Your task to perform on an android device: make emails show in primary in the gmail app Image 0: 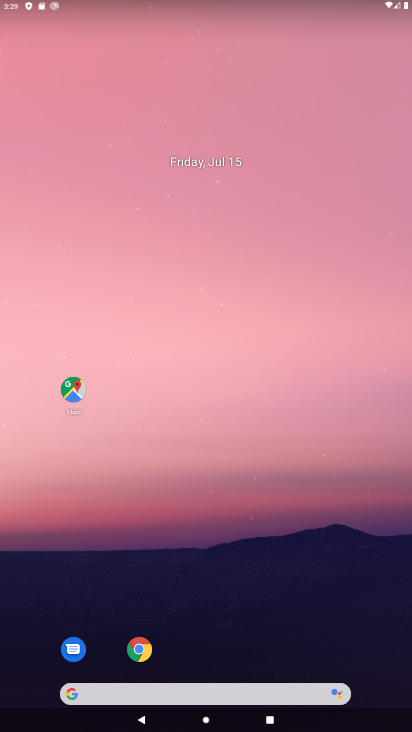
Step 0: drag from (300, 608) to (183, 24)
Your task to perform on an android device: make emails show in primary in the gmail app Image 1: 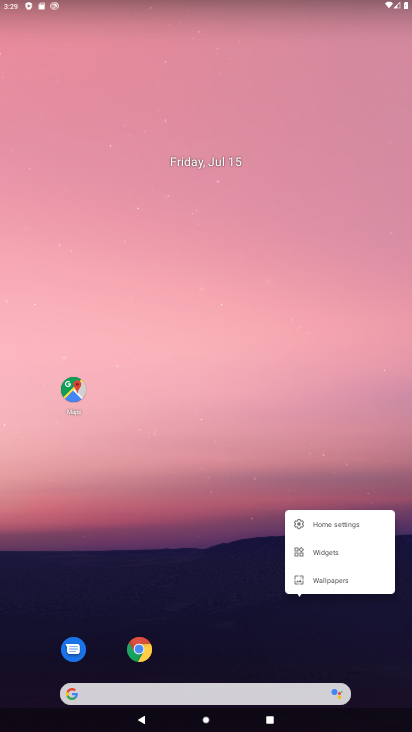
Step 1: click (251, 538)
Your task to perform on an android device: make emails show in primary in the gmail app Image 2: 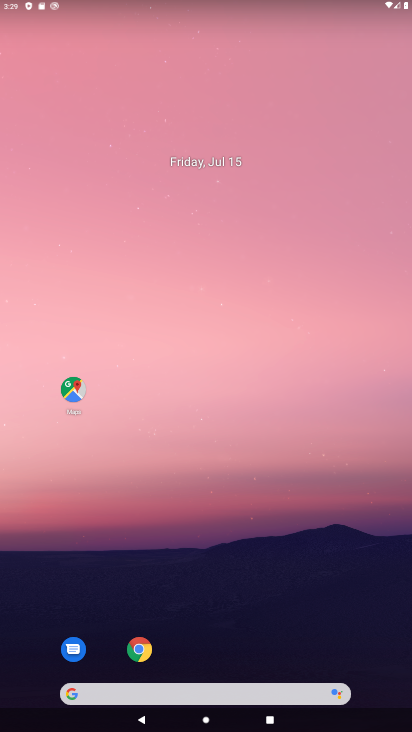
Step 2: drag from (284, 638) to (213, 117)
Your task to perform on an android device: make emails show in primary in the gmail app Image 3: 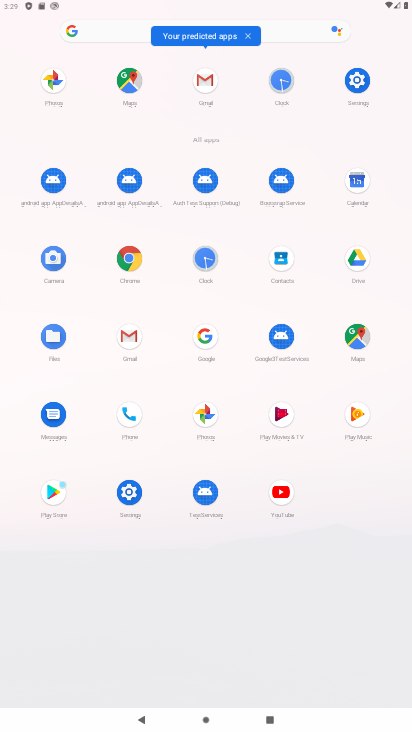
Step 3: click (204, 84)
Your task to perform on an android device: make emails show in primary in the gmail app Image 4: 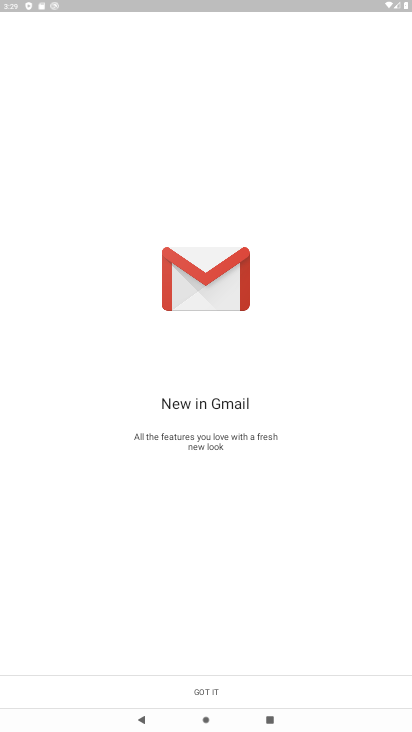
Step 4: click (169, 684)
Your task to perform on an android device: make emails show in primary in the gmail app Image 5: 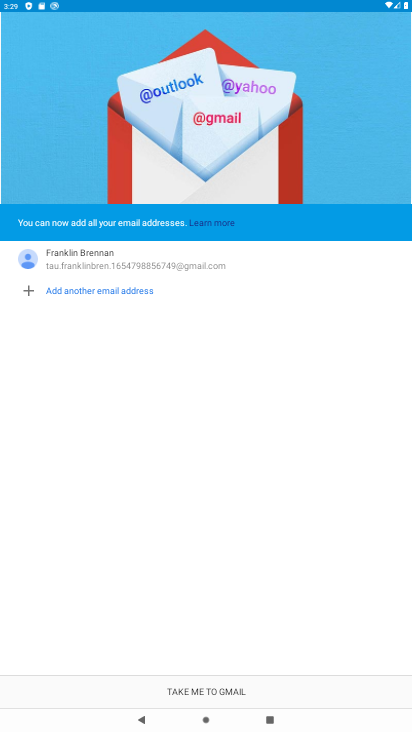
Step 5: click (169, 684)
Your task to perform on an android device: make emails show in primary in the gmail app Image 6: 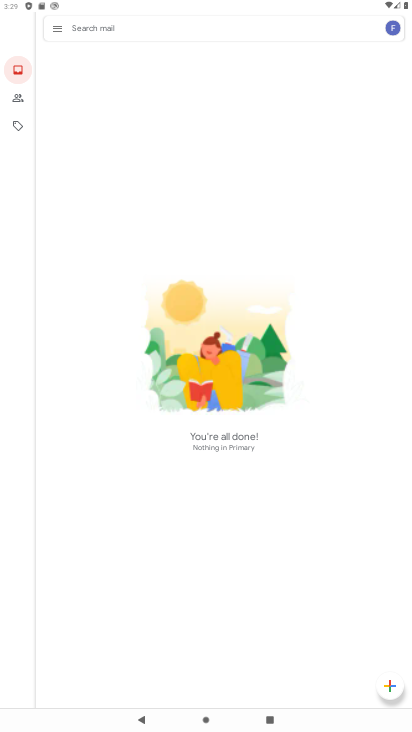
Step 6: click (63, 33)
Your task to perform on an android device: make emails show in primary in the gmail app Image 7: 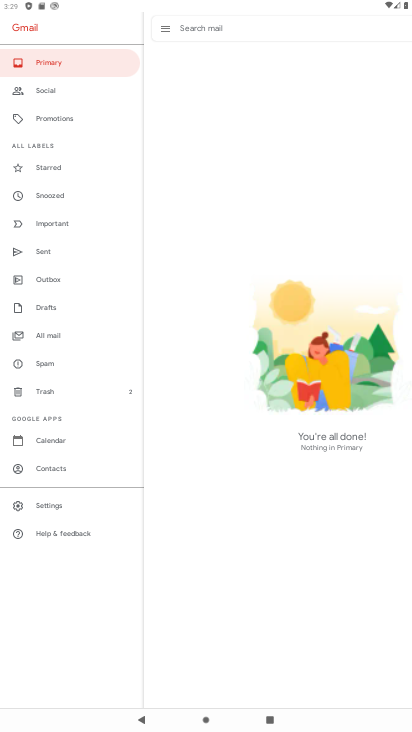
Step 7: click (72, 505)
Your task to perform on an android device: make emails show in primary in the gmail app Image 8: 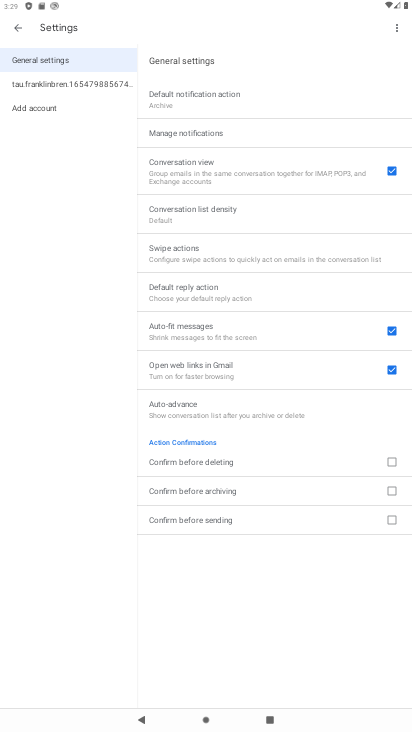
Step 8: click (104, 84)
Your task to perform on an android device: make emails show in primary in the gmail app Image 9: 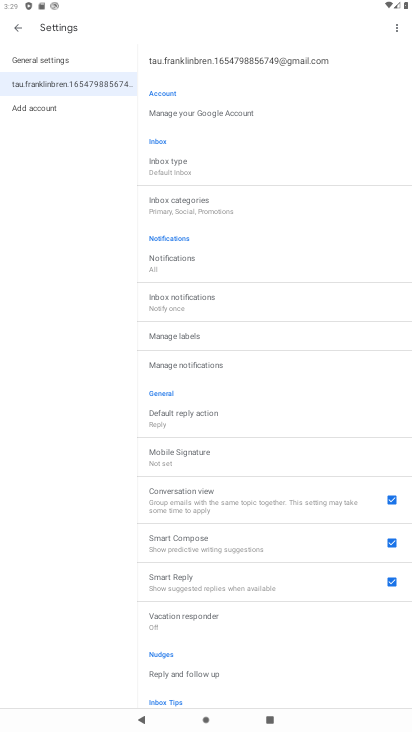
Step 9: click (225, 203)
Your task to perform on an android device: make emails show in primary in the gmail app Image 10: 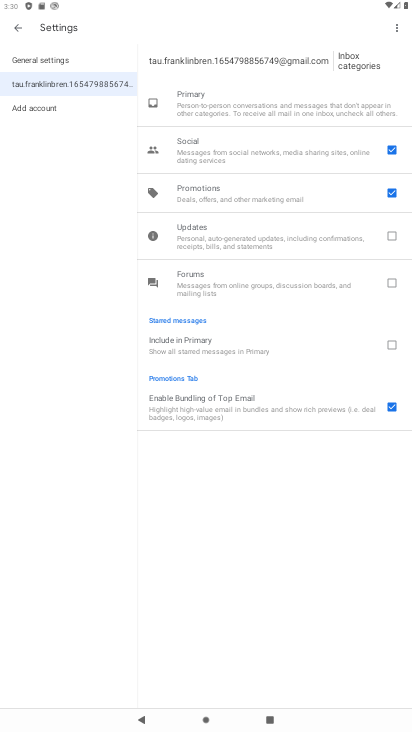
Step 10: click (393, 192)
Your task to perform on an android device: make emails show in primary in the gmail app Image 11: 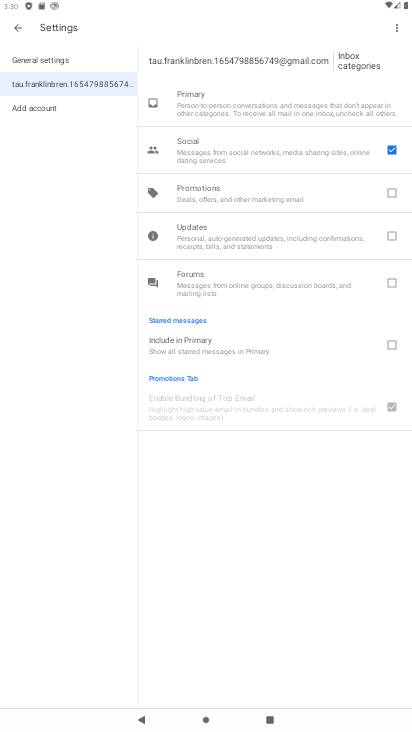
Step 11: click (391, 149)
Your task to perform on an android device: make emails show in primary in the gmail app Image 12: 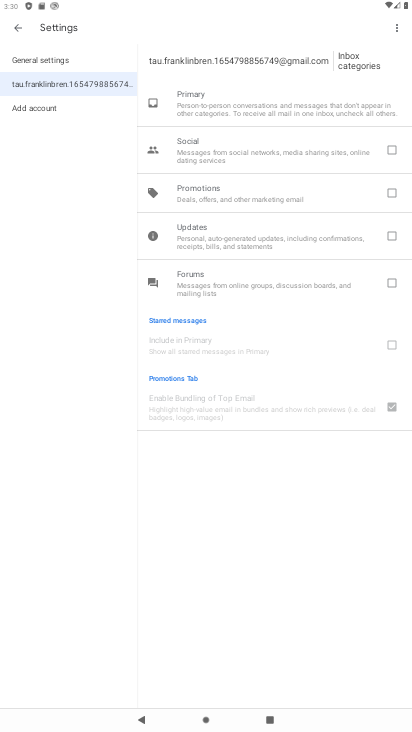
Step 12: click (15, 26)
Your task to perform on an android device: make emails show in primary in the gmail app Image 13: 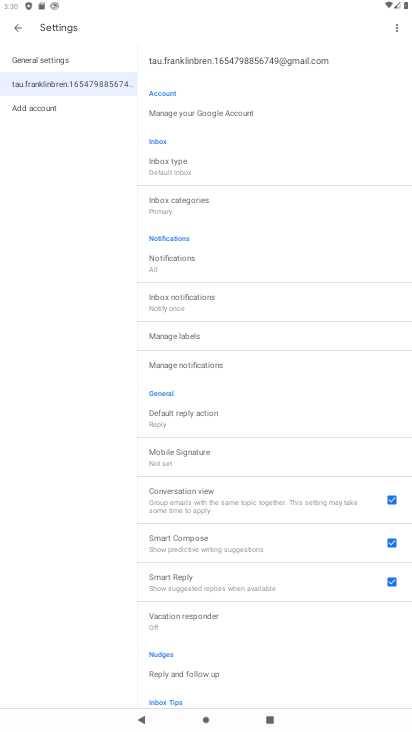
Step 13: task complete